Your task to perform on an android device: Open accessibility settings Image 0: 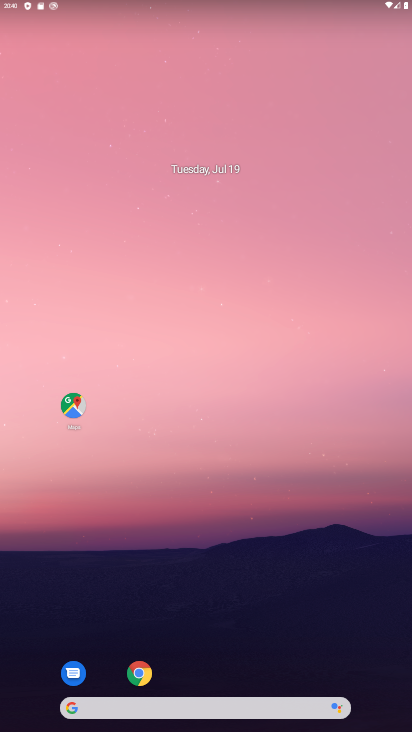
Step 0: drag from (254, 333) to (295, 58)
Your task to perform on an android device: Open accessibility settings Image 1: 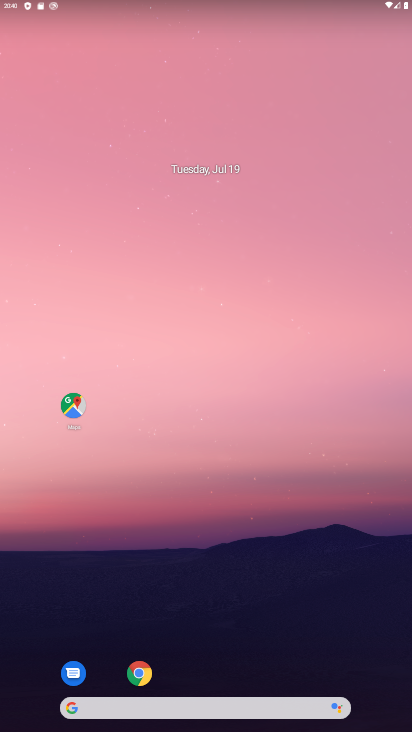
Step 1: drag from (223, 628) to (298, 10)
Your task to perform on an android device: Open accessibility settings Image 2: 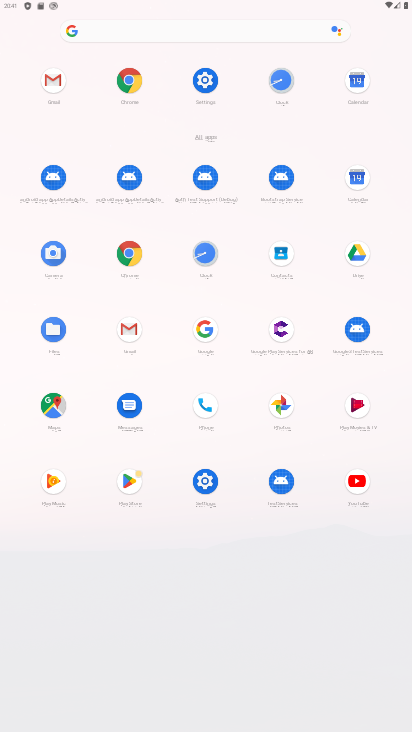
Step 2: click (214, 491)
Your task to perform on an android device: Open accessibility settings Image 3: 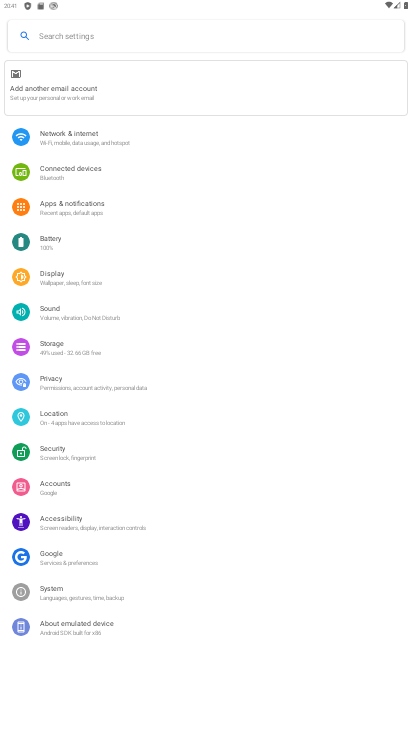
Step 3: click (89, 520)
Your task to perform on an android device: Open accessibility settings Image 4: 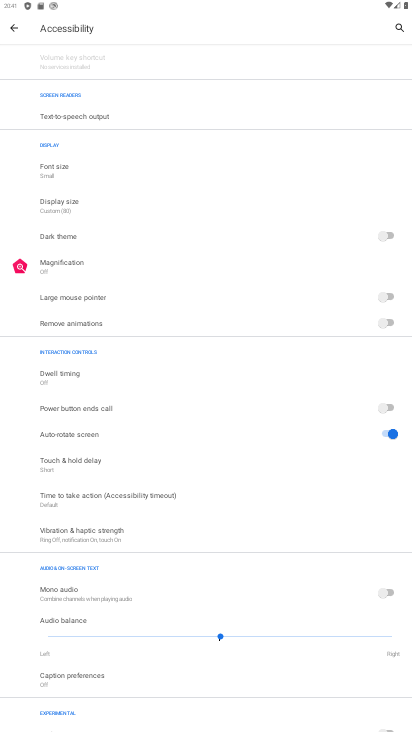
Step 4: task complete